Your task to perform on an android device: turn off data saver in the chrome app Image 0: 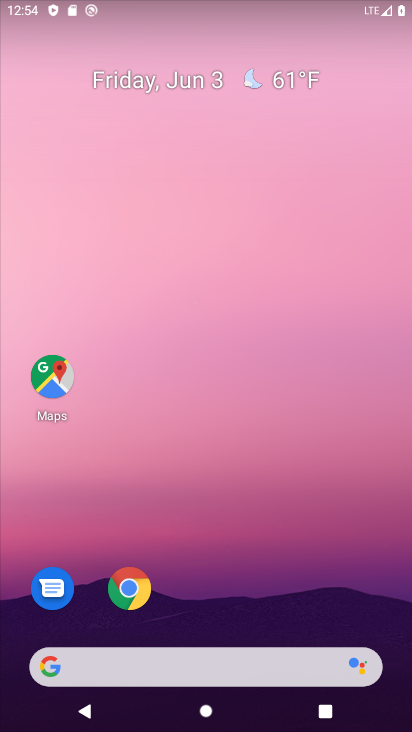
Step 0: click (127, 595)
Your task to perform on an android device: turn off data saver in the chrome app Image 1: 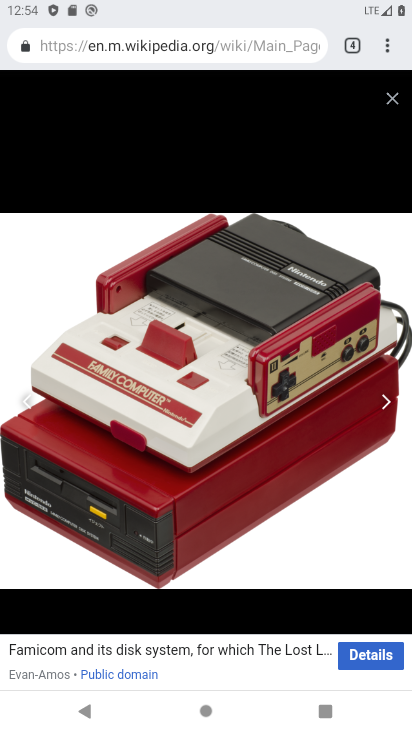
Step 1: click (385, 43)
Your task to perform on an android device: turn off data saver in the chrome app Image 2: 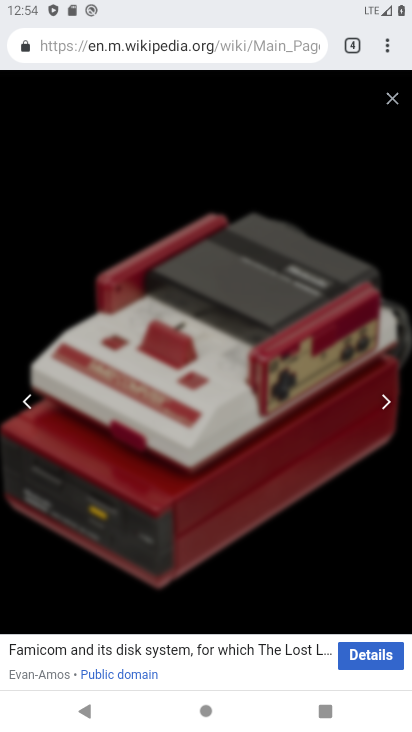
Step 2: click (380, 45)
Your task to perform on an android device: turn off data saver in the chrome app Image 3: 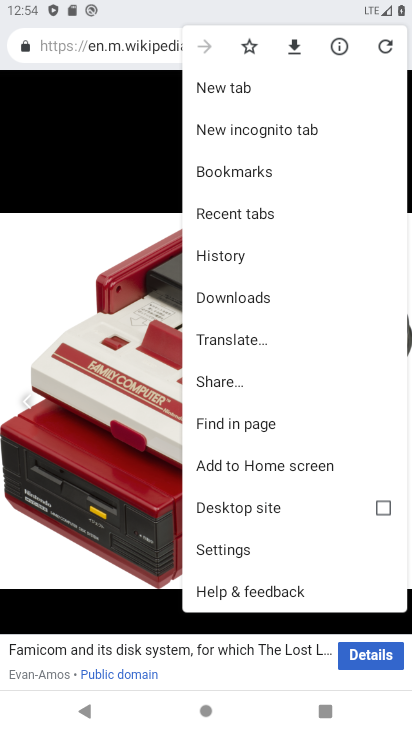
Step 3: click (247, 543)
Your task to perform on an android device: turn off data saver in the chrome app Image 4: 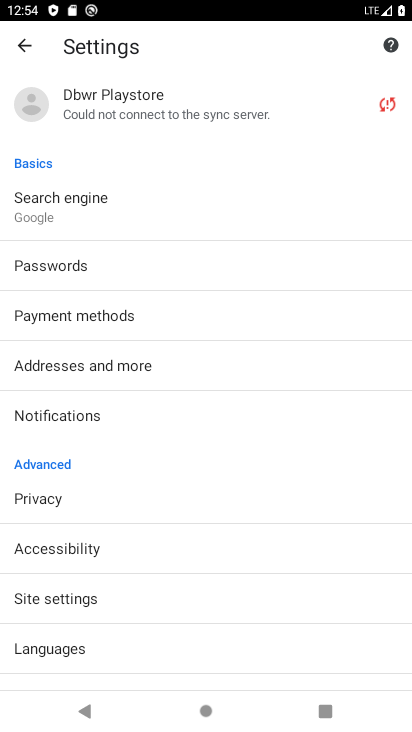
Step 4: drag from (23, 577) to (350, 91)
Your task to perform on an android device: turn off data saver in the chrome app Image 5: 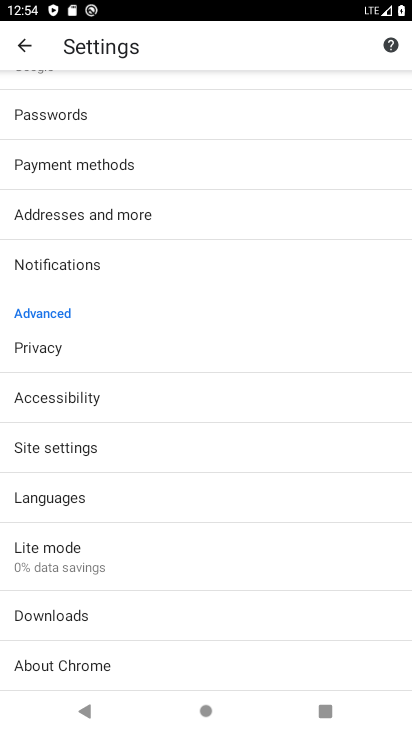
Step 5: click (57, 568)
Your task to perform on an android device: turn off data saver in the chrome app Image 6: 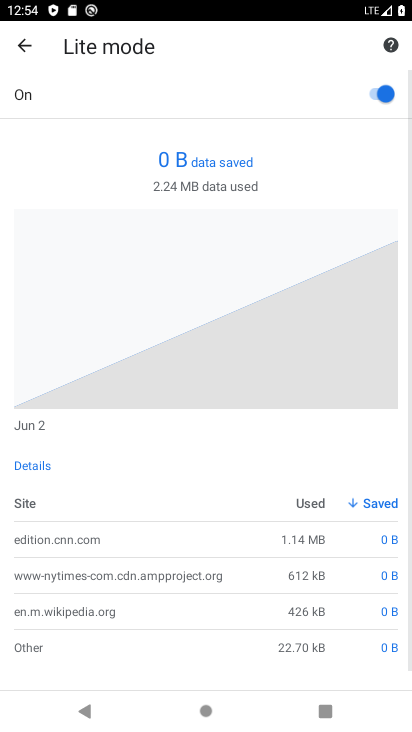
Step 6: click (385, 98)
Your task to perform on an android device: turn off data saver in the chrome app Image 7: 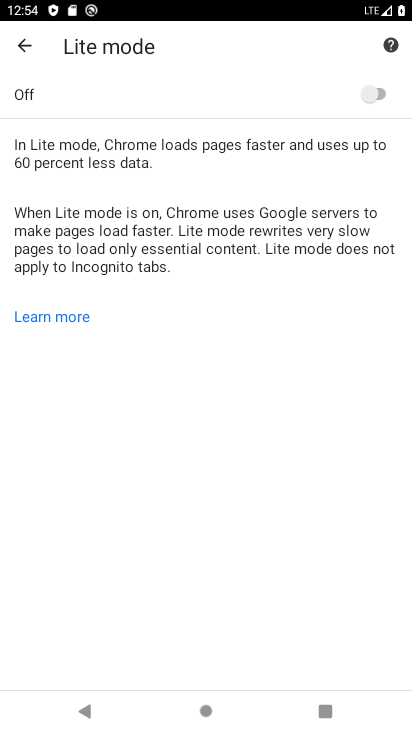
Step 7: task complete